Your task to perform on an android device: What's the weather going to be tomorrow? Image 0: 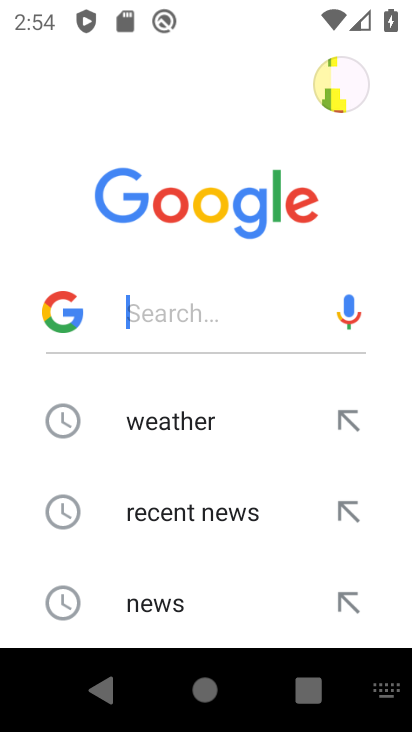
Step 0: press home button
Your task to perform on an android device: What's the weather going to be tomorrow? Image 1: 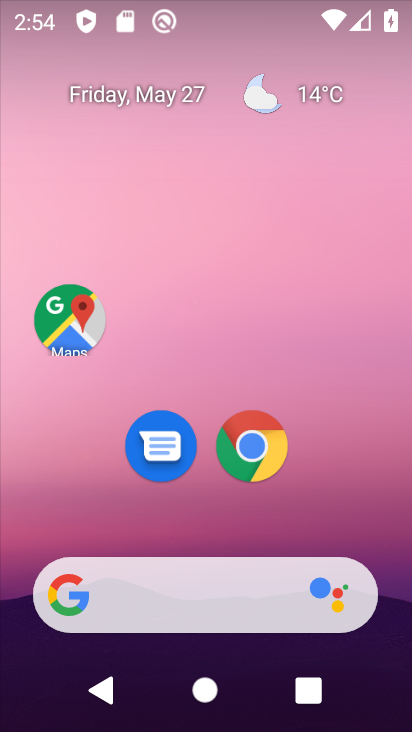
Step 1: click (317, 99)
Your task to perform on an android device: What's the weather going to be tomorrow? Image 2: 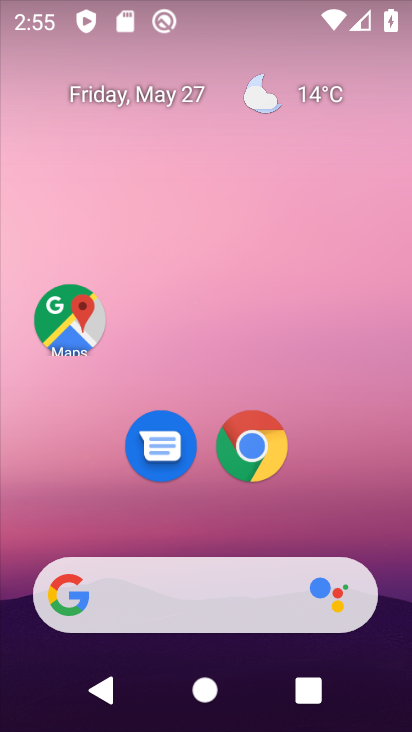
Step 2: click (315, 98)
Your task to perform on an android device: What's the weather going to be tomorrow? Image 3: 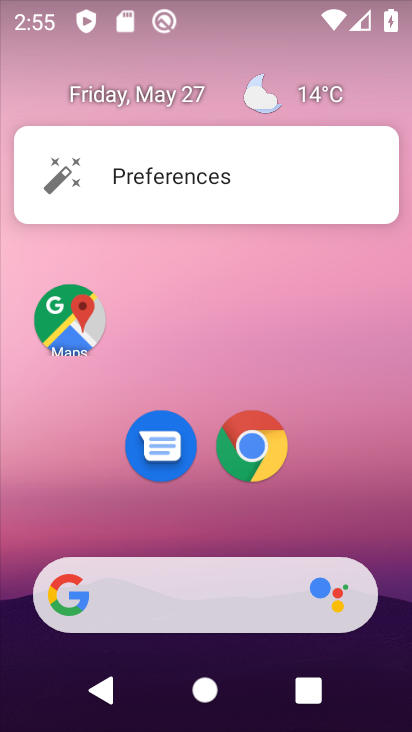
Step 3: click (275, 103)
Your task to perform on an android device: What's the weather going to be tomorrow? Image 4: 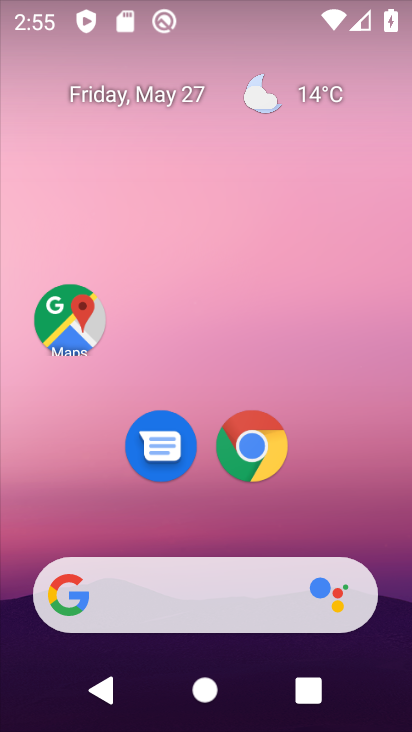
Step 4: click (306, 89)
Your task to perform on an android device: What's the weather going to be tomorrow? Image 5: 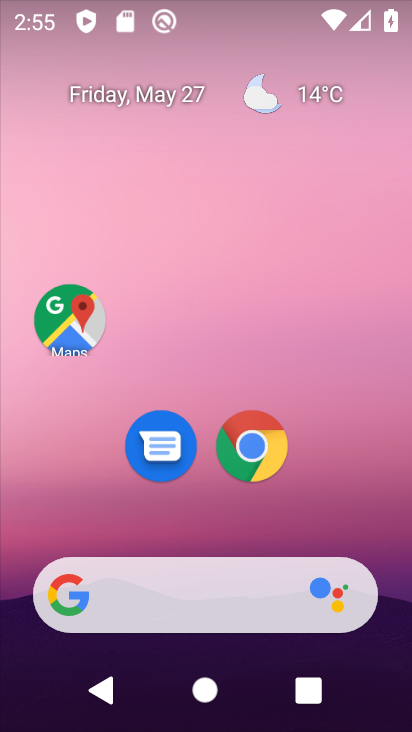
Step 5: click (323, 90)
Your task to perform on an android device: What's the weather going to be tomorrow? Image 6: 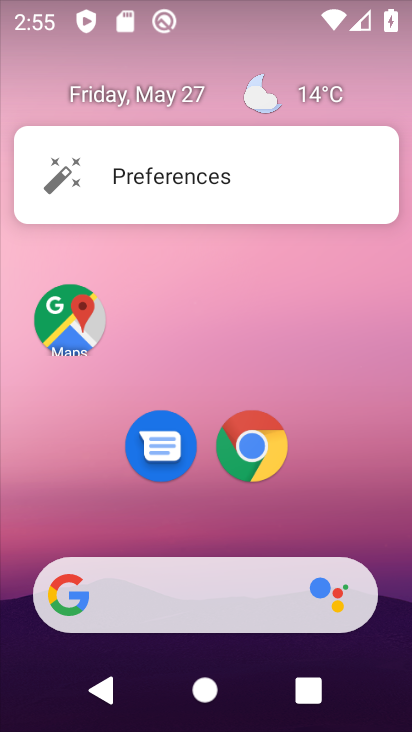
Step 6: click (79, 596)
Your task to perform on an android device: What's the weather going to be tomorrow? Image 7: 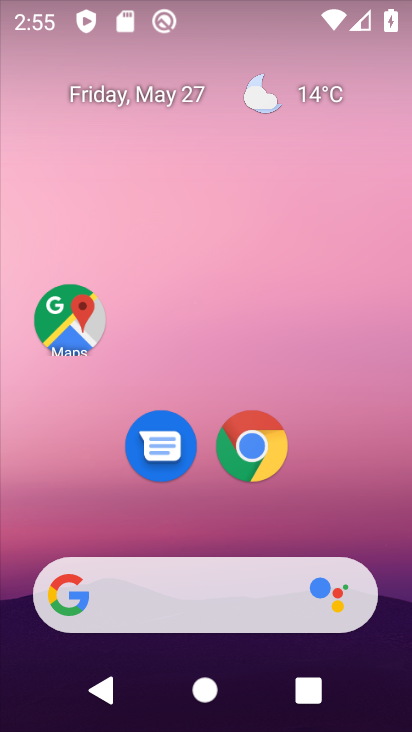
Step 7: click (75, 600)
Your task to perform on an android device: What's the weather going to be tomorrow? Image 8: 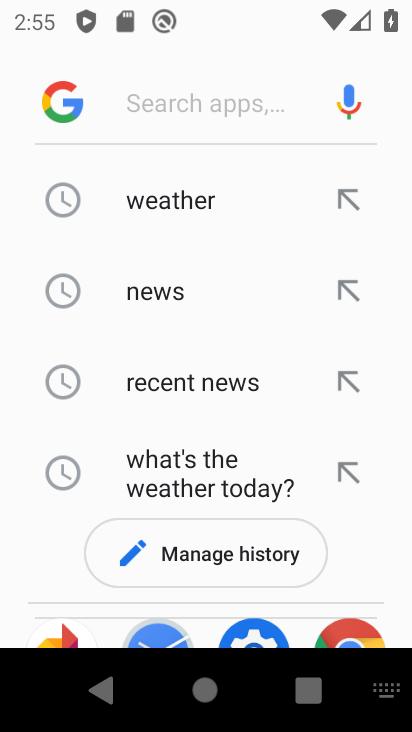
Step 8: click (203, 202)
Your task to perform on an android device: What's the weather going to be tomorrow? Image 9: 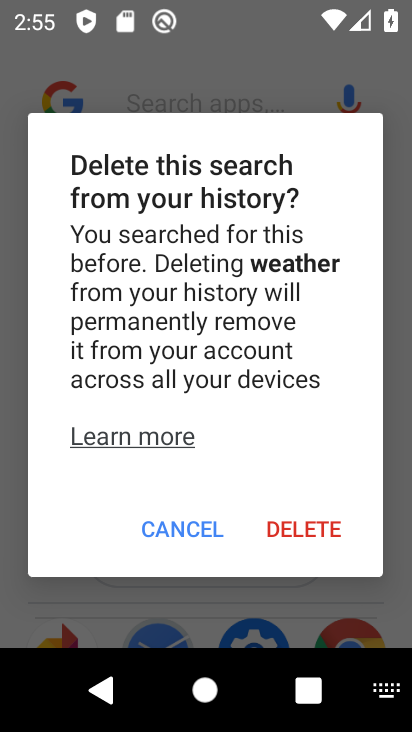
Step 9: click (165, 533)
Your task to perform on an android device: What's the weather going to be tomorrow? Image 10: 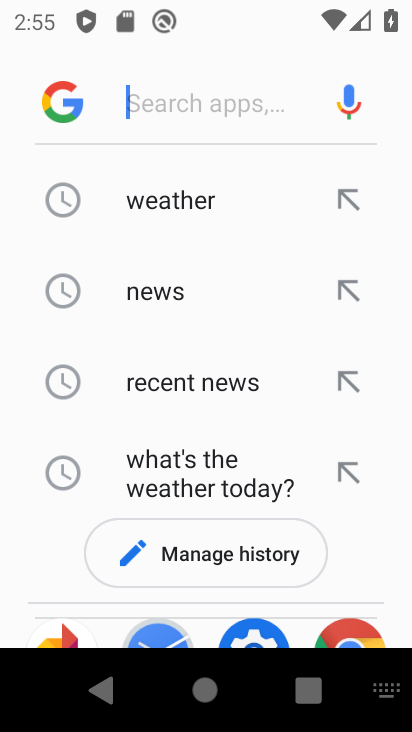
Step 10: click (164, 199)
Your task to perform on an android device: What's the weather going to be tomorrow? Image 11: 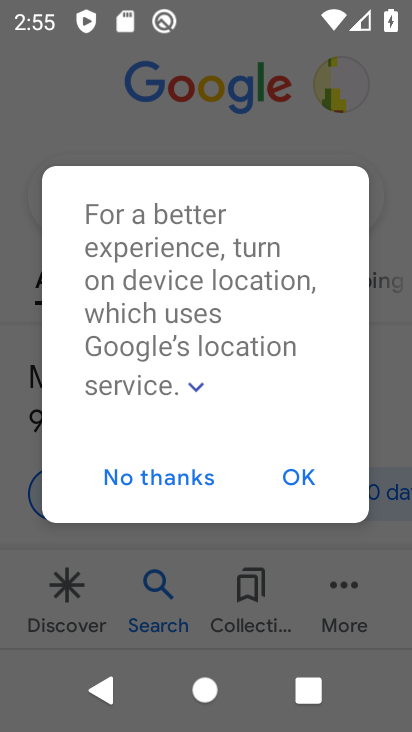
Step 11: click (302, 479)
Your task to perform on an android device: What's the weather going to be tomorrow? Image 12: 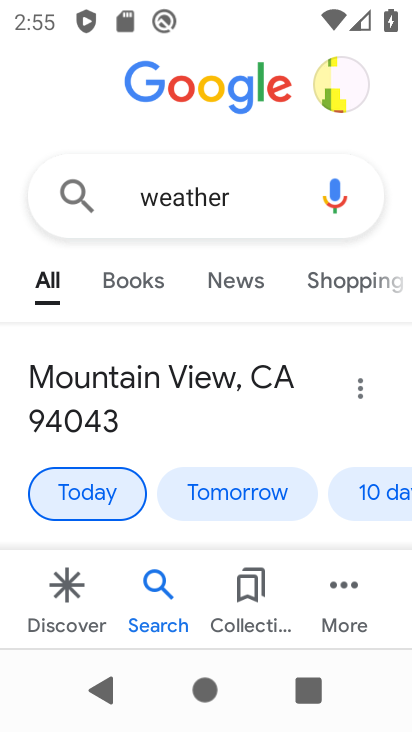
Step 12: click (232, 490)
Your task to perform on an android device: What's the weather going to be tomorrow? Image 13: 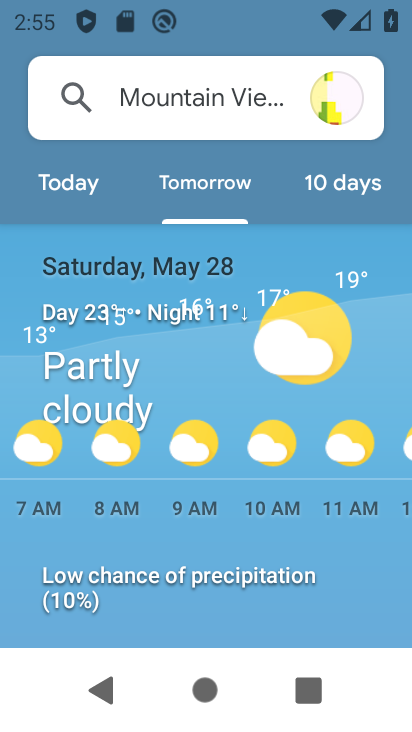
Step 13: task complete